Your task to perform on an android device: open app "DuckDuckGo Privacy Browser" (install if not already installed) and go to login screen Image 0: 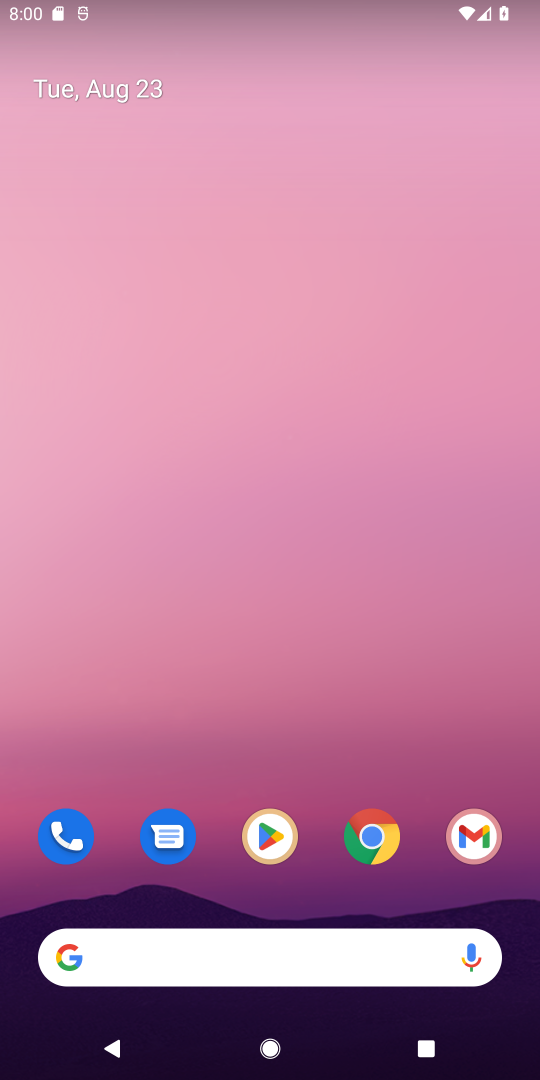
Step 0: press home button
Your task to perform on an android device: open app "DuckDuckGo Privacy Browser" (install if not already installed) and go to login screen Image 1: 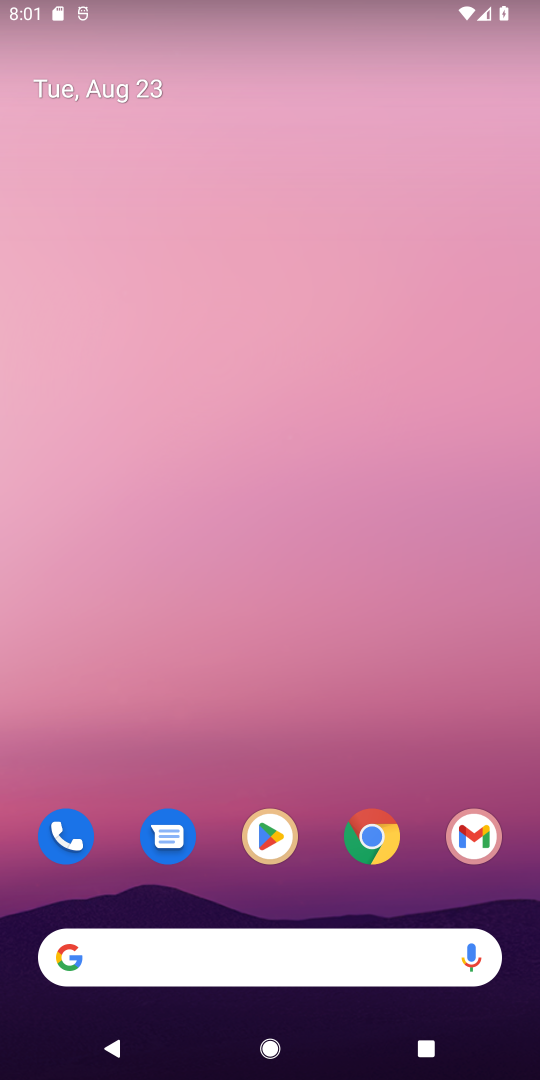
Step 1: click (280, 838)
Your task to perform on an android device: open app "DuckDuckGo Privacy Browser" (install if not already installed) and go to login screen Image 2: 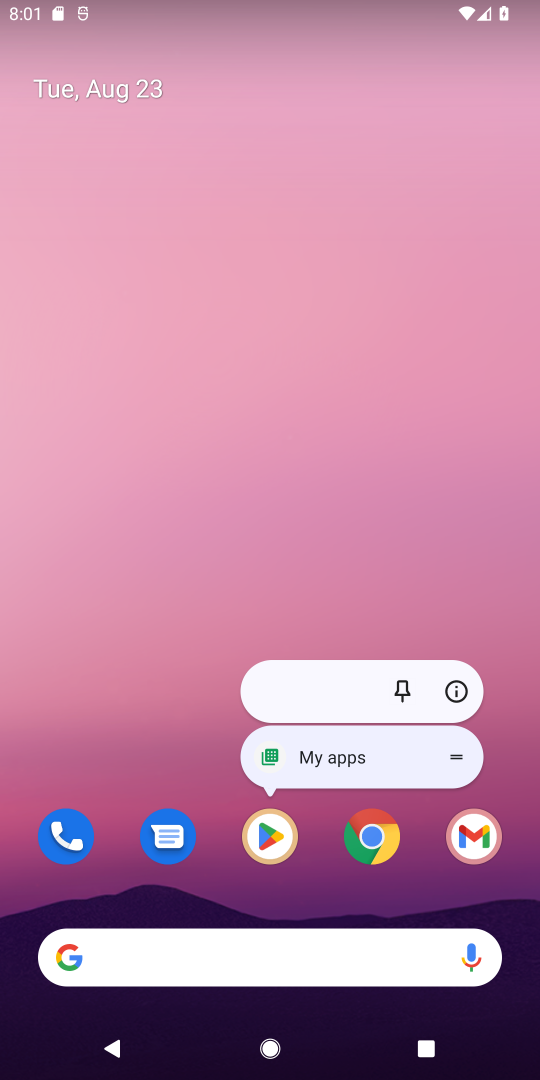
Step 2: click (265, 841)
Your task to perform on an android device: open app "DuckDuckGo Privacy Browser" (install if not already installed) and go to login screen Image 3: 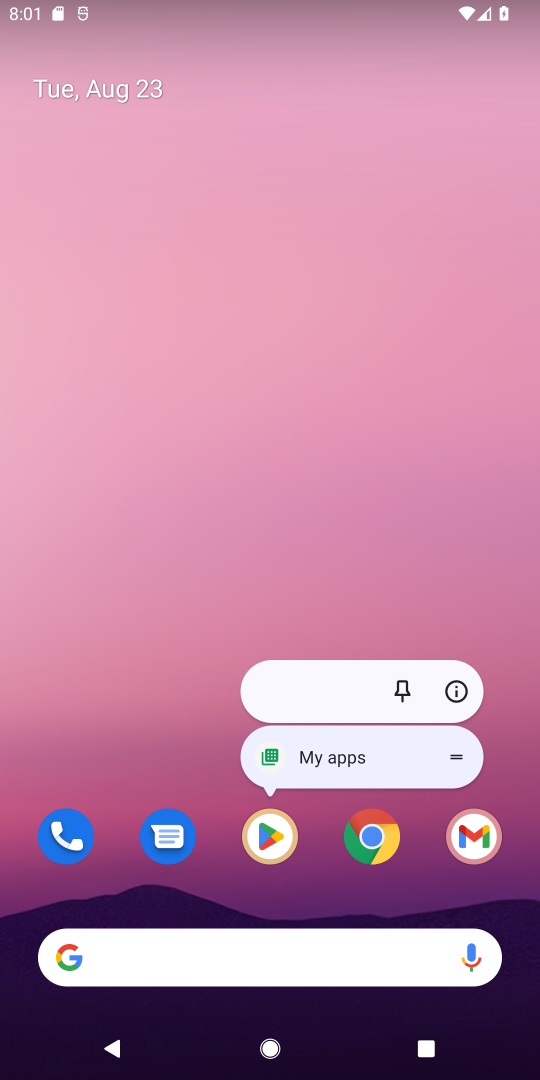
Step 3: click (265, 841)
Your task to perform on an android device: open app "DuckDuckGo Privacy Browser" (install if not already installed) and go to login screen Image 4: 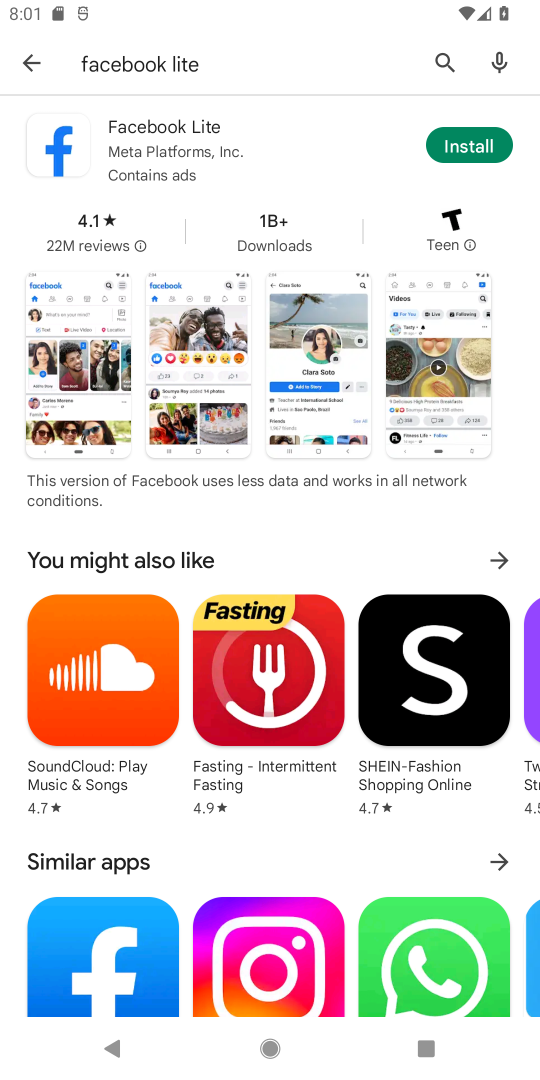
Step 4: click (440, 61)
Your task to perform on an android device: open app "DuckDuckGo Privacy Browser" (install if not already installed) and go to login screen Image 5: 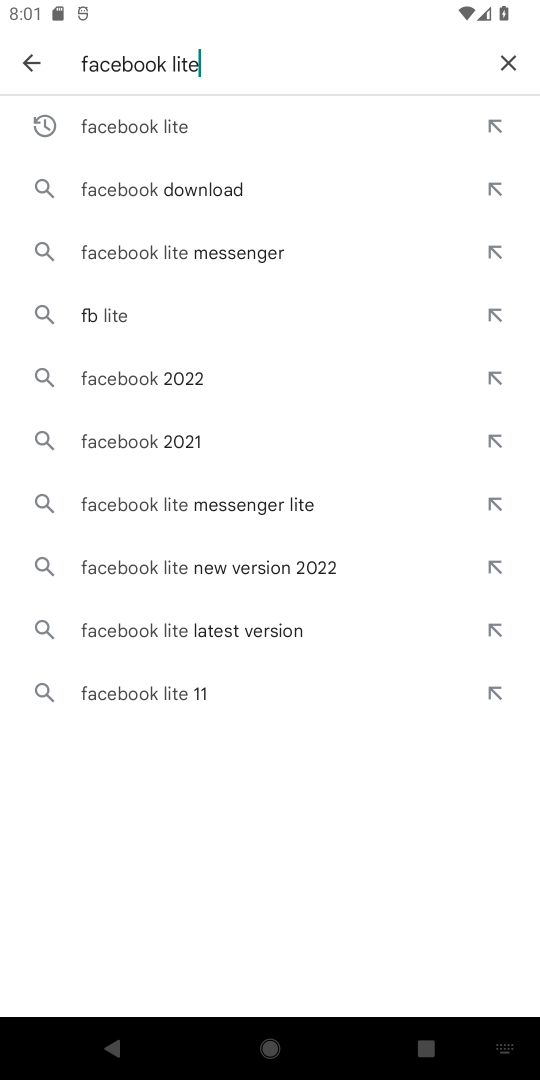
Step 5: click (503, 52)
Your task to perform on an android device: open app "DuckDuckGo Privacy Browser" (install if not already installed) and go to login screen Image 6: 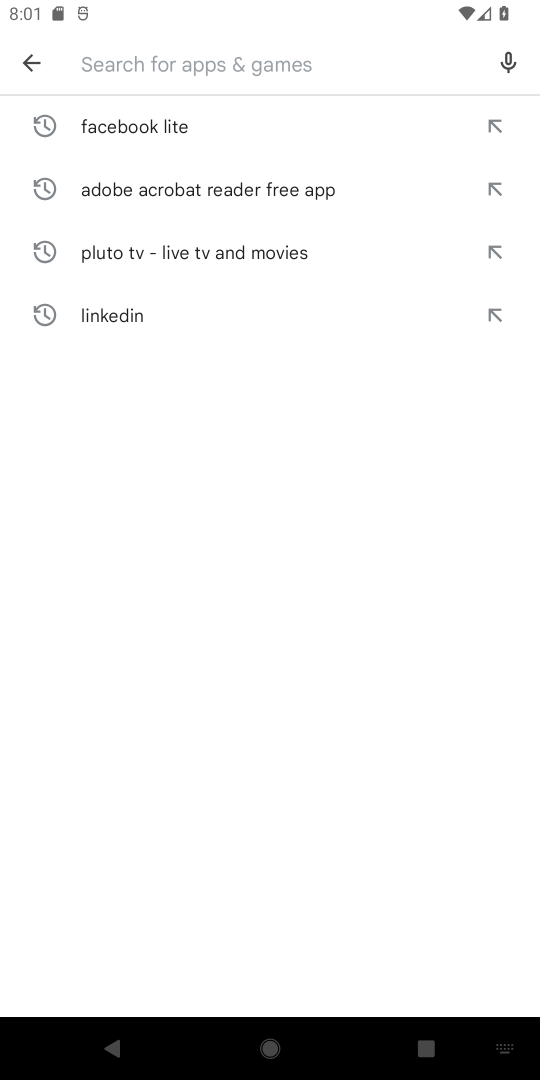
Step 6: type "DuckDuckGo Privacy Browser"
Your task to perform on an android device: open app "DuckDuckGo Privacy Browser" (install if not already installed) and go to login screen Image 7: 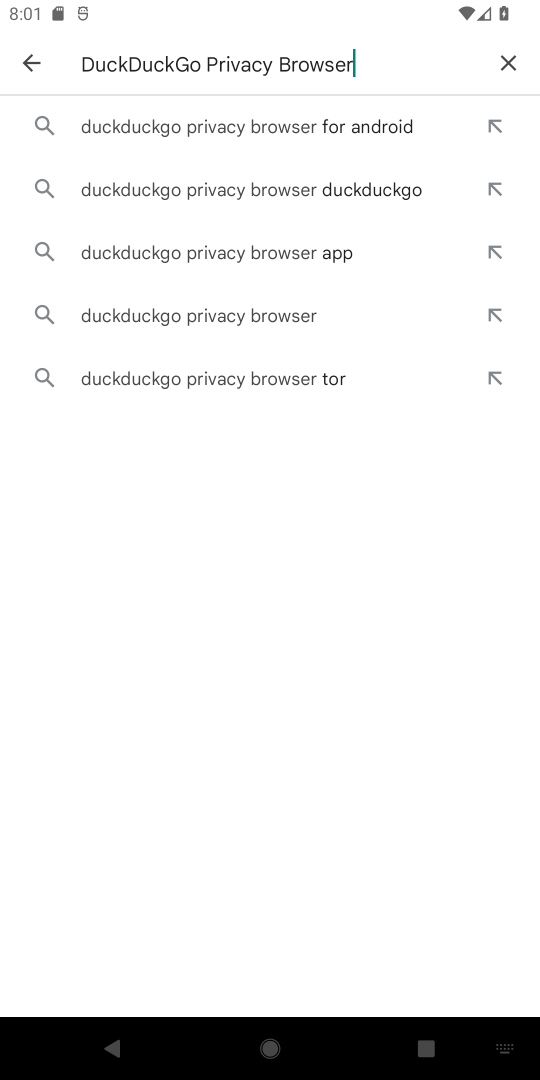
Step 7: click (234, 119)
Your task to perform on an android device: open app "DuckDuckGo Privacy Browser" (install if not already installed) and go to login screen Image 8: 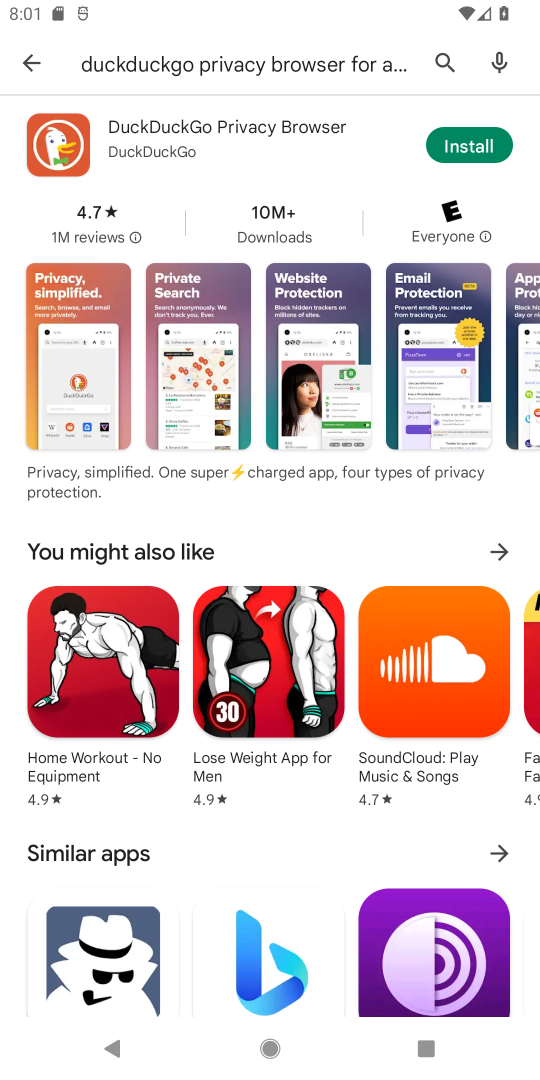
Step 8: click (477, 145)
Your task to perform on an android device: open app "DuckDuckGo Privacy Browser" (install if not already installed) and go to login screen Image 9: 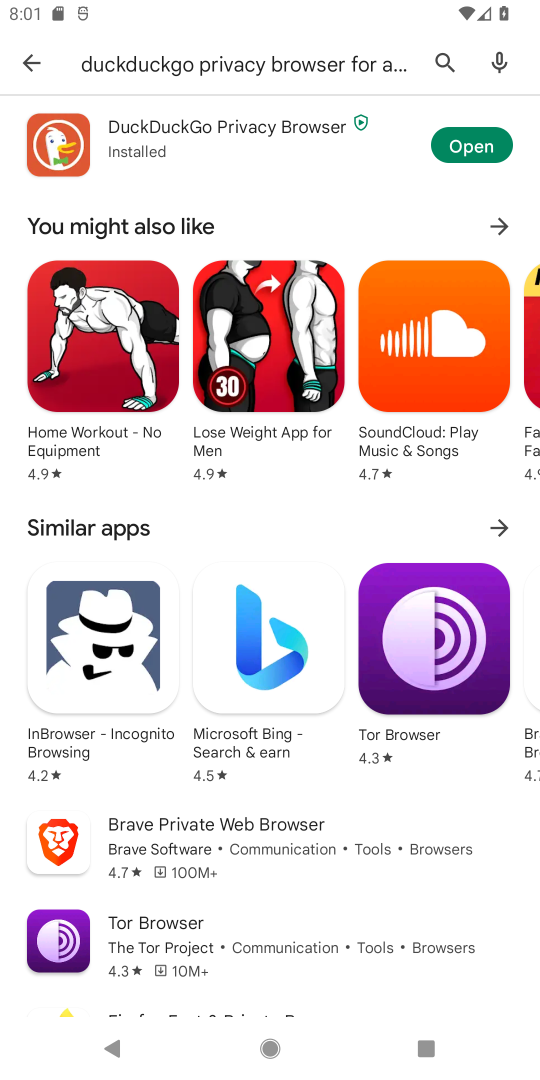
Step 9: click (464, 139)
Your task to perform on an android device: open app "DuckDuckGo Privacy Browser" (install if not already installed) and go to login screen Image 10: 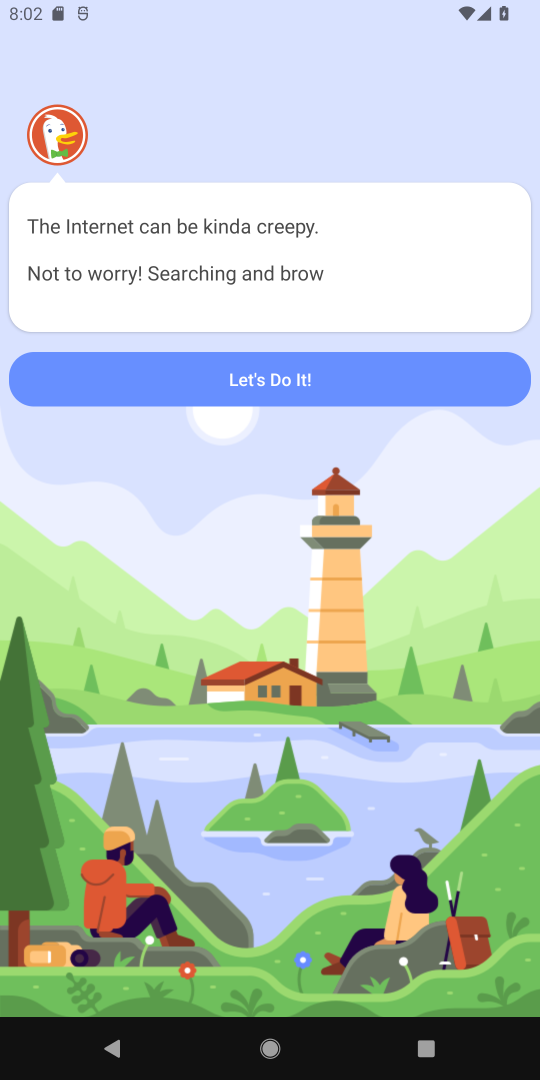
Step 10: click (313, 375)
Your task to perform on an android device: open app "DuckDuckGo Privacy Browser" (install if not already installed) and go to login screen Image 11: 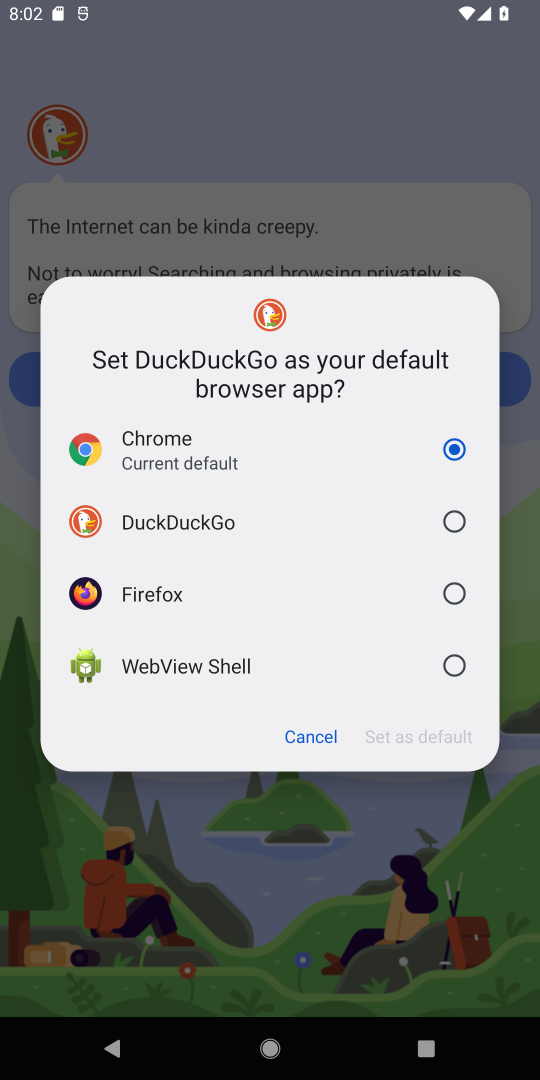
Step 11: task complete